Your task to perform on an android device: Do I have any events today? Image 0: 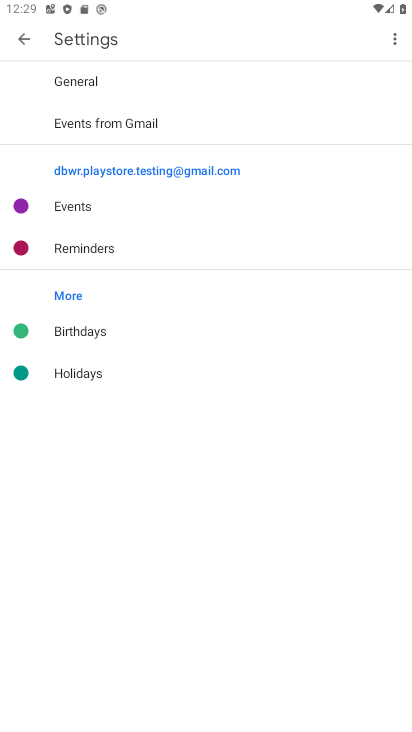
Step 0: press home button
Your task to perform on an android device: Do I have any events today? Image 1: 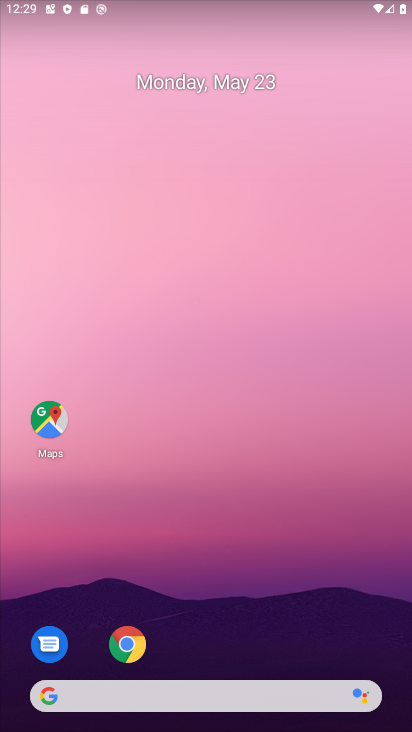
Step 1: drag from (254, 666) to (222, 167)
Your task to perform on an android device: Do I have any events today? Image 2: 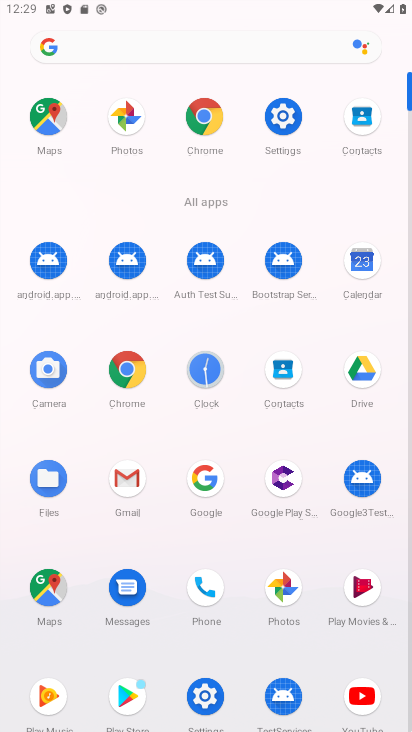
Step 2: click (361, 263)
Your task to perform on an android device: Do I have any events today? Image 3: 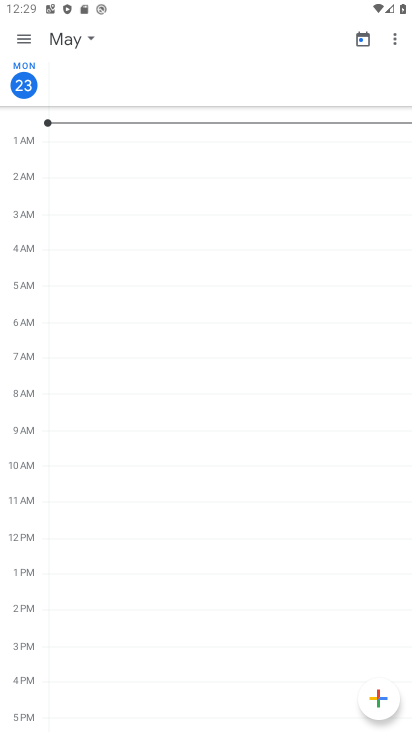
Step 3: click (24, 37)
Your task to perform on an android device: Do I have any events today? Image 4: 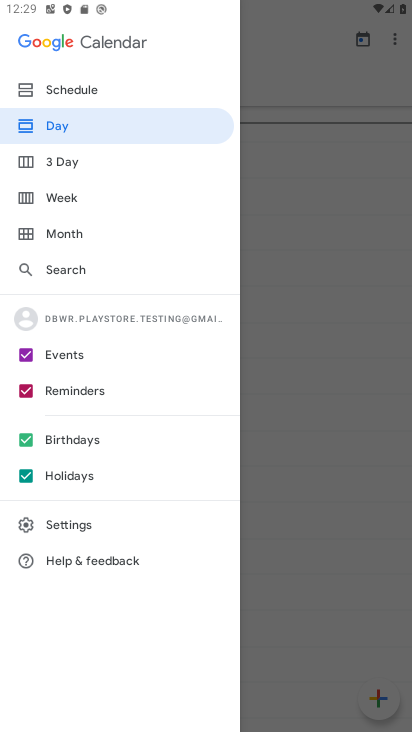
Step 4: click (24, 392)
Your task to perform on an android device: Do I have any events today? Image 5: 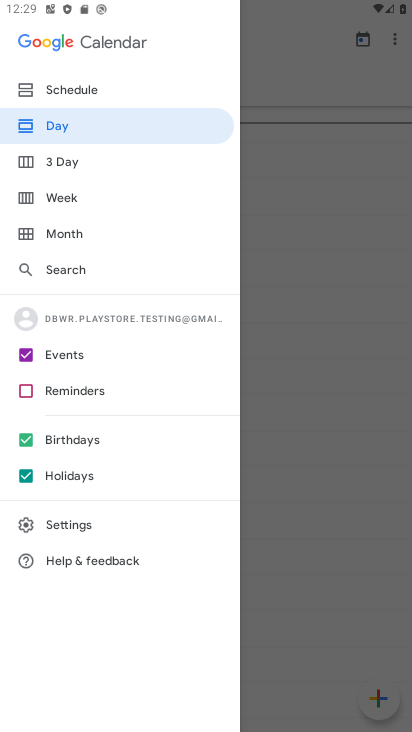
Step 5: click (25, 446)
Your task to perform on an android device: Do I have any events today? Image 6: 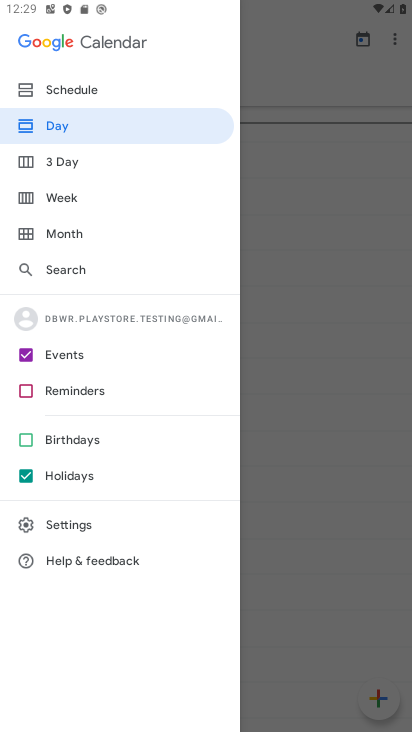
Step 6: click (27, 478)
Your task to perform on an android device: Do I have any events today? Image 7: 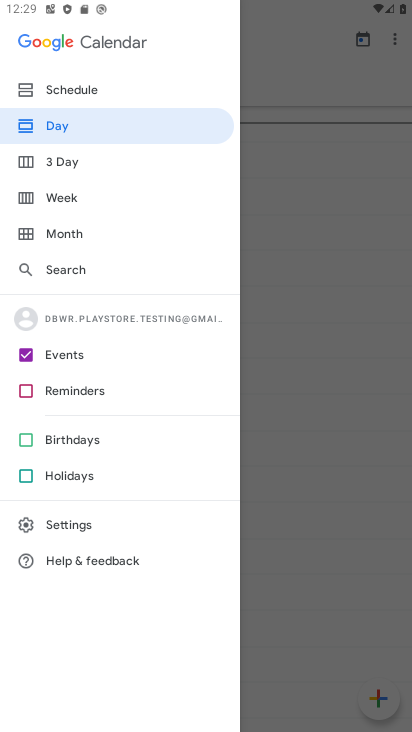
Step 7: click (101, 87)
Your task to perform on an android device: Do I have any events today? Image 8: 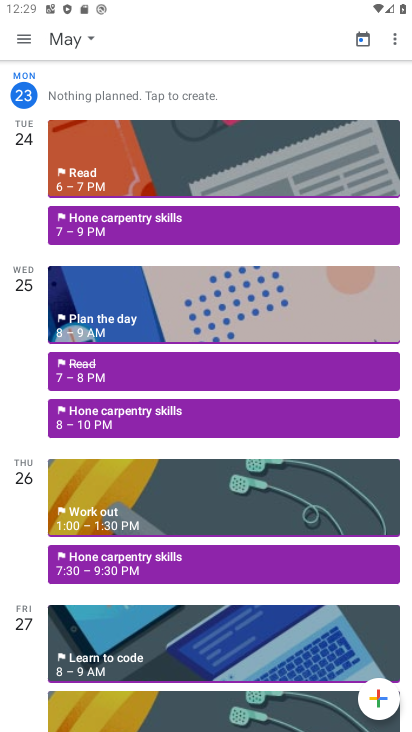
Step 8: click (182, 92)
Your task to perform on an android device: Do I have any events today? Image 9: 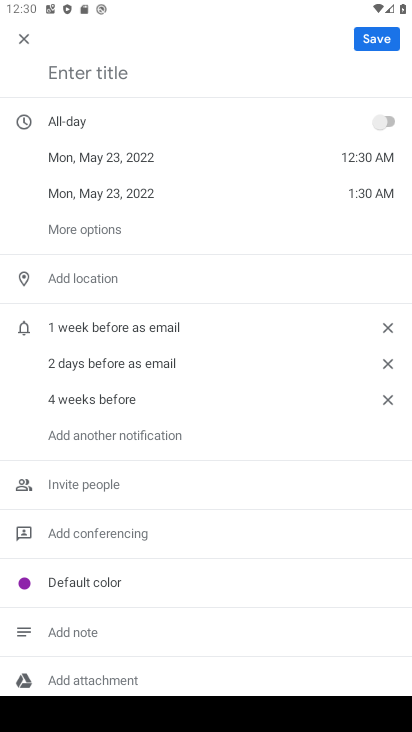
Step 9: click (23, 21)
Your task to perform on an android device: Do I have any events today? Image 10: 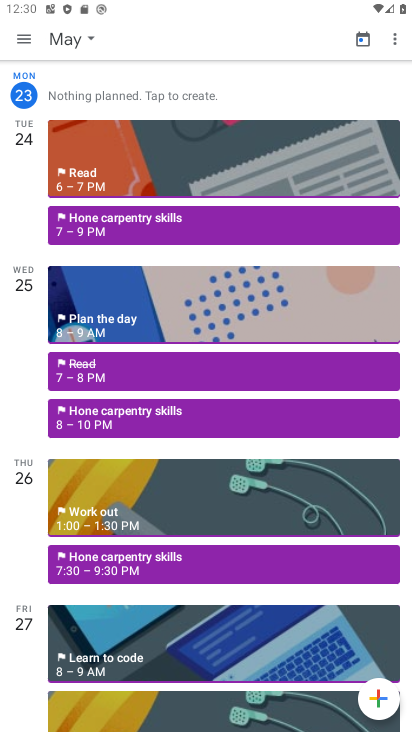
Step 10: task complete